Your task to perform on an android device: move an email to a new category in the gmail app Image 0: 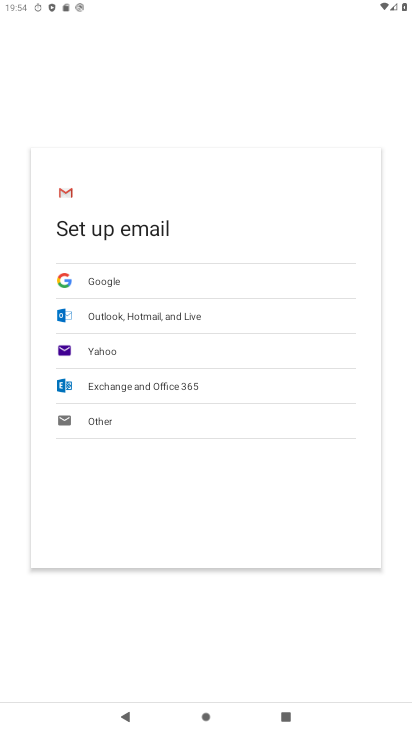
Step 0: press home button
Your task to perform on an android device: move an email to a new category in the gmail app Image 1: 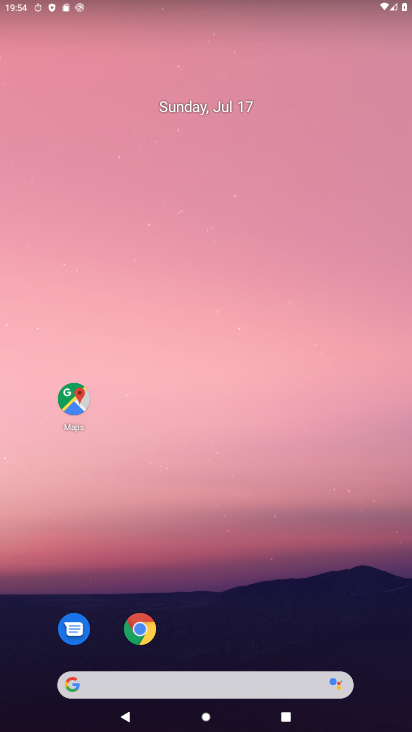
Step 1: drag from (309, 627) to (212, 102)
Your task to perform on an android device: move an email to a new category in the gmail app Image 2: 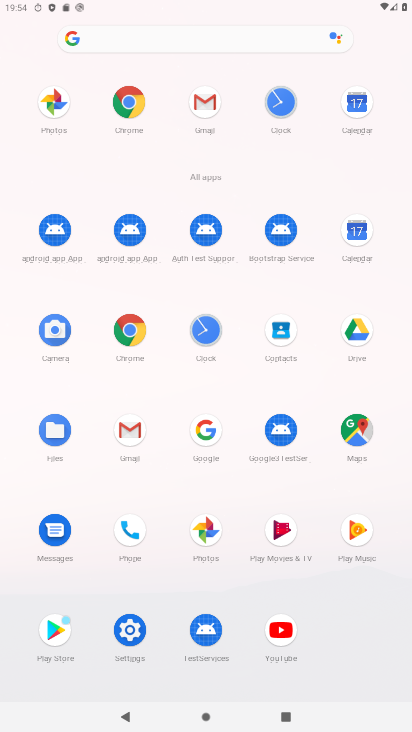
Step 2: click (208, 114)
Your task to perform on an android device: move an email to a new category in the gmail app Image 3: 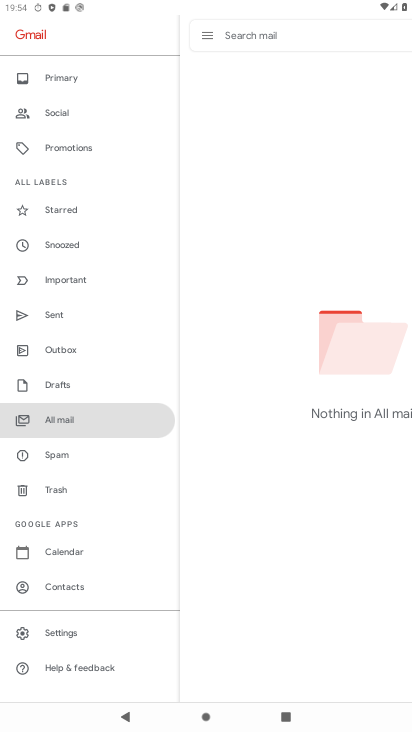
Step 3: task complete